Your task to perform on an android device: Open settings on Google Maps Image 0: 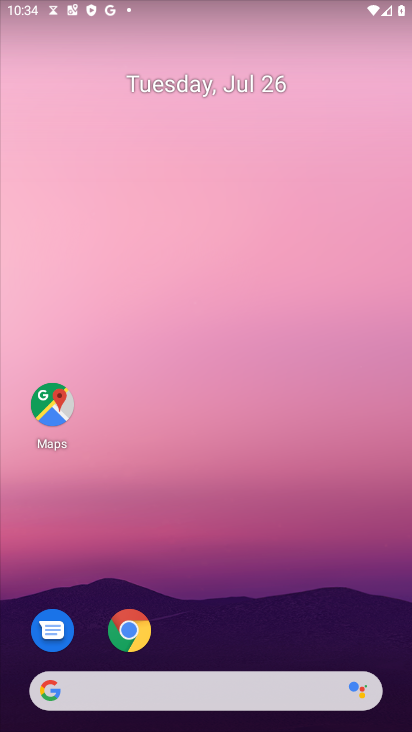
Step 0: click (50, 406)
Your task to perform on an android device: Open settings on Google Maps Image 1: 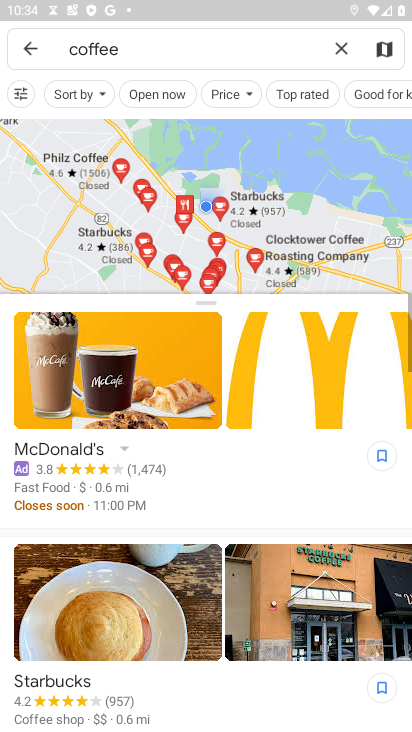
Step 1: press back button
Your task to perform on an android device: Open settings on Google Maps Image 2: 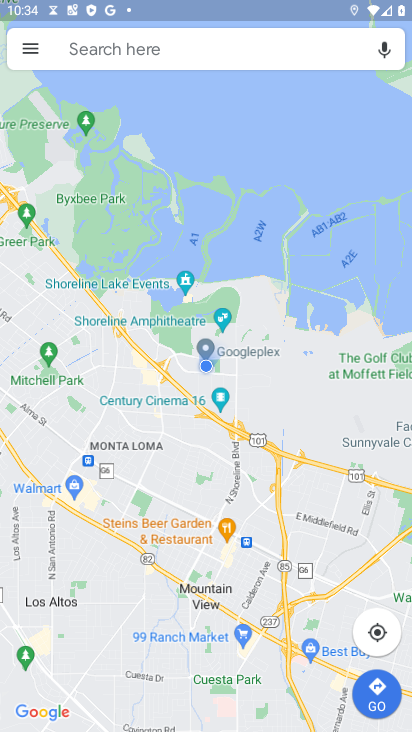
Step 2: click (29, 46)
Your task to perform on an android device: Open settings on Google Maps Image 3: 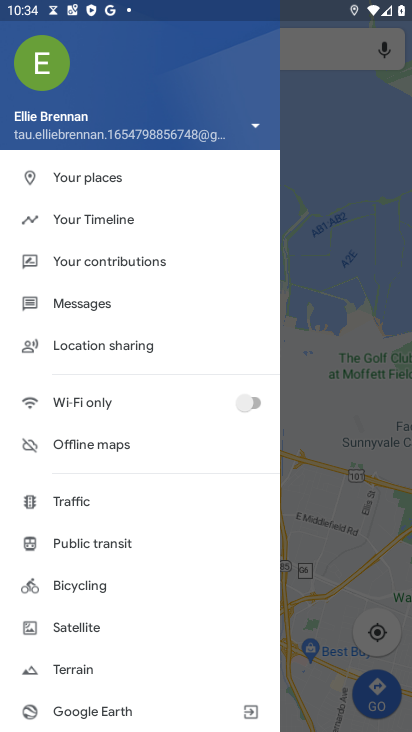
Step 3: drag from (80, 415) to (88, 314)
Your task to perform on an android device: Open settings on Google Maps Image 4: 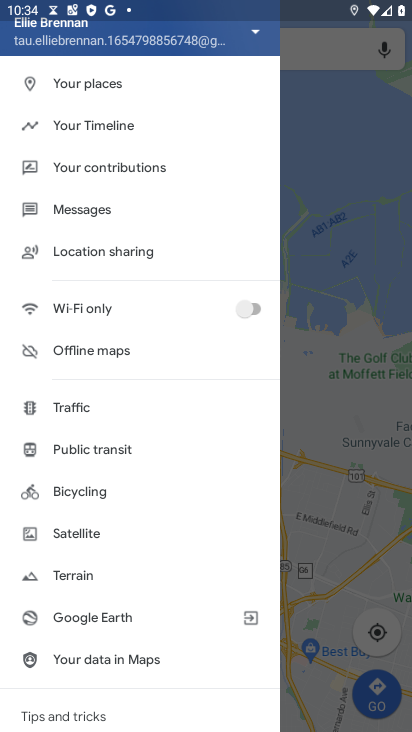
Step 4: drag from (64, 512) to (145, 353)
Your task to perform on an android device: Open settings on Google Maps Image 5: 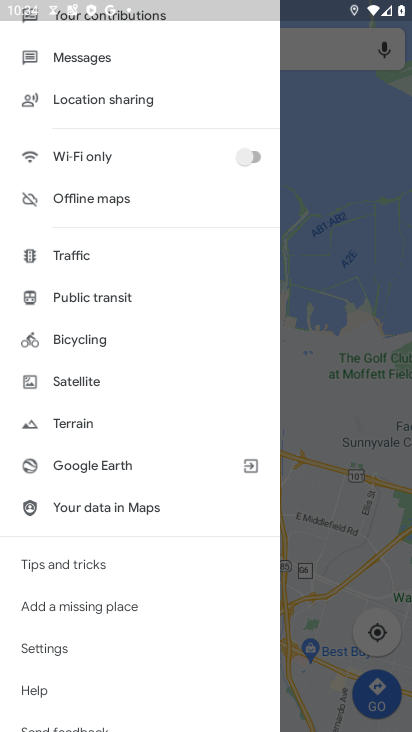
Step 5: drag from (79, 630) to (124, 550)
Your task to perform on an android device: Open settings on Google Maps Image 6: 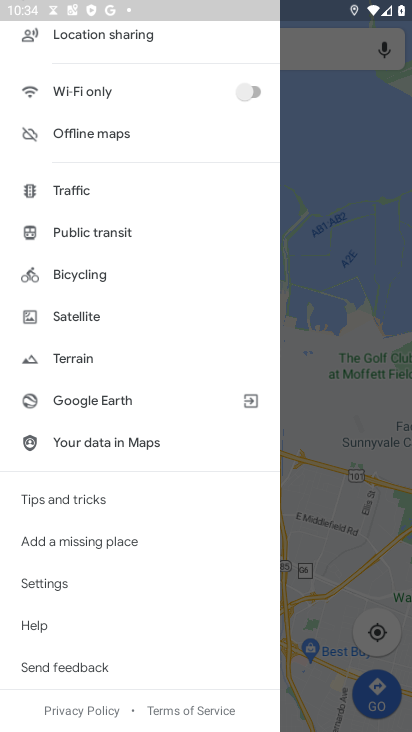
Step 6: click (61, 585)
Your task to perform on an android device: Open settings on Google Maps Image 7: 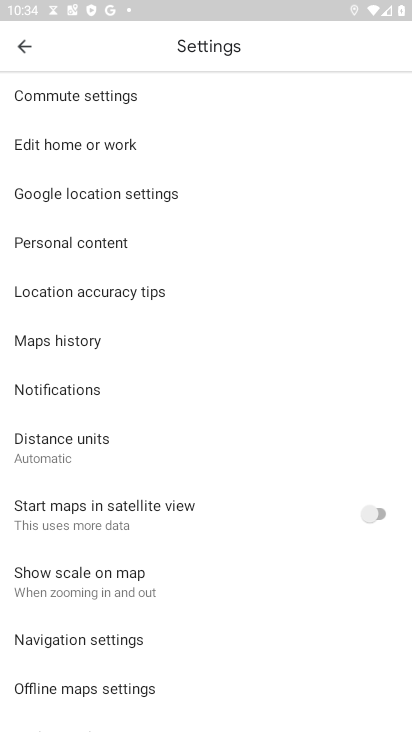
Step 7: task complete